Your task to perform on an android device: turn off priority inbox in the gmail app Image 0: 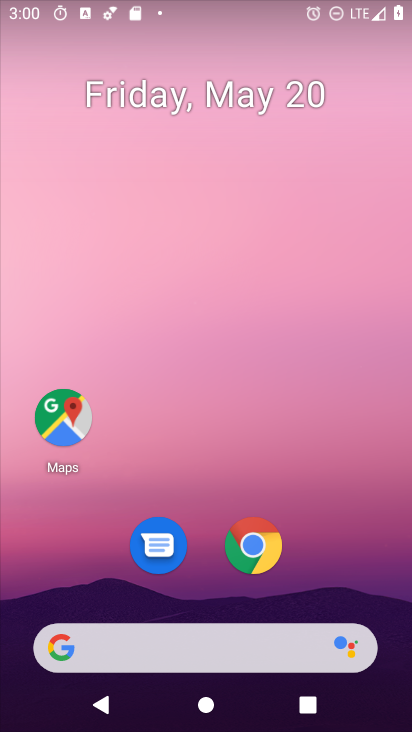
Step 0: drag from (182, 593) to (211, 0)
Your task to perform on an android device: turn off priority inbox in the gmail app Image 1: 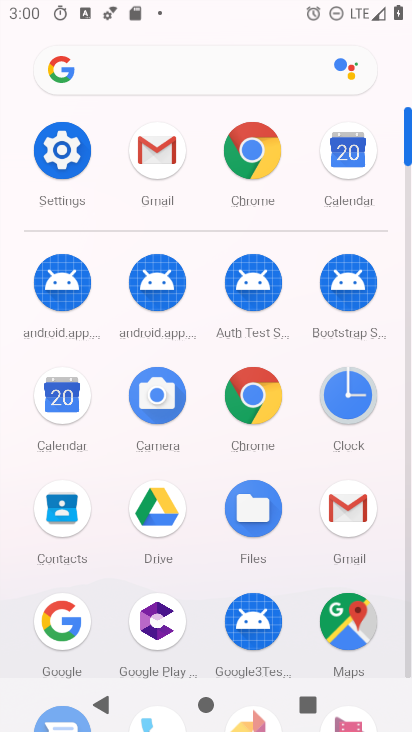
Step 1: click (338, 505)
Your task to perform on an android device: turn off priority inbox in the gmail app Image 2: 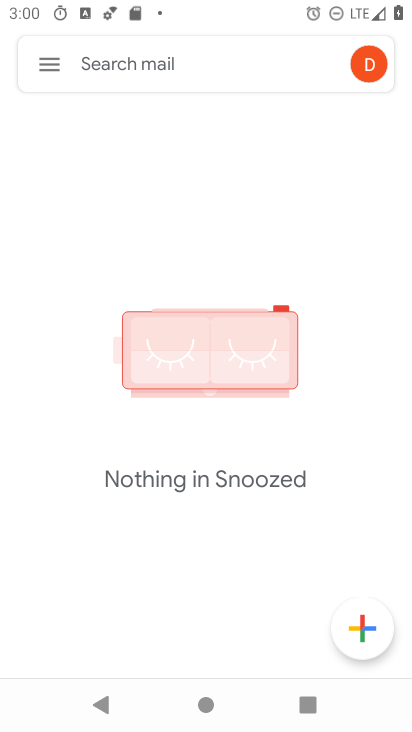
Step 2: click (58, 65)
Your task to perform on an android device: turn off priority inbox in the gmail app Image 3: 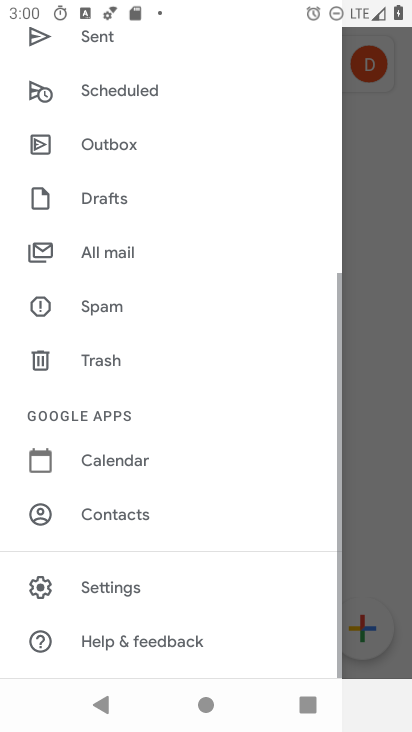
Step 3: click (164, 582)
Your task to perform on an android device: turn off priority inbox in the gmail app Image 4: 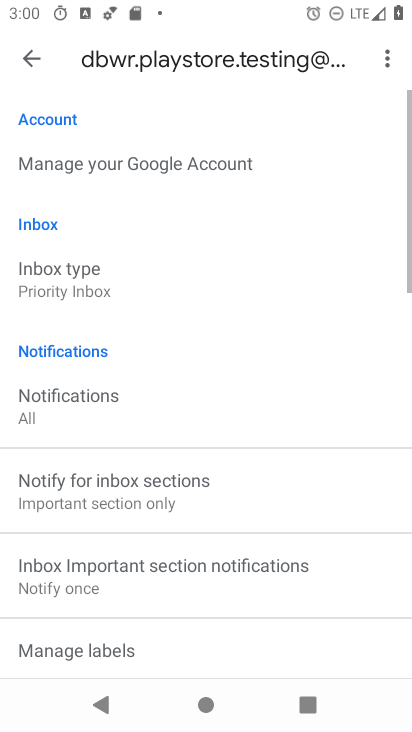
Step 4: drag from (201, 636) to (248, 173)
Your task to perform on an android device: turn off priority inbox in the gmail app Image 5: 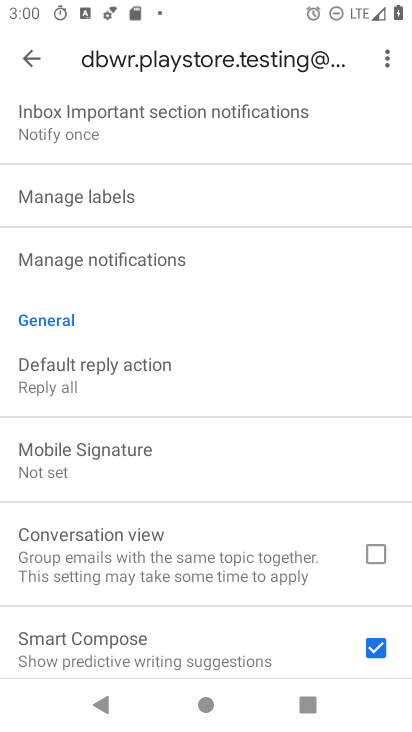
Step 5: drag from (315, 178) to (274, 718)
Your task to perform on an android device: turn off priority inbox in the gmail app Image 6: 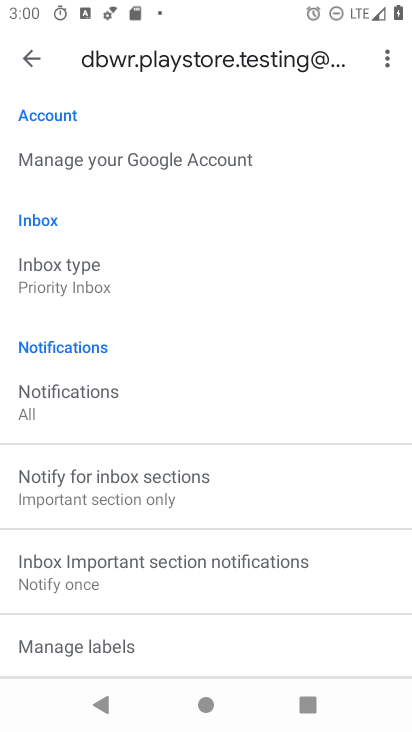
Step 6: drag from (128, 211) to (273, 731)
Your task to perform on an android device: turn off priority inbox in the gmail app Image 7: 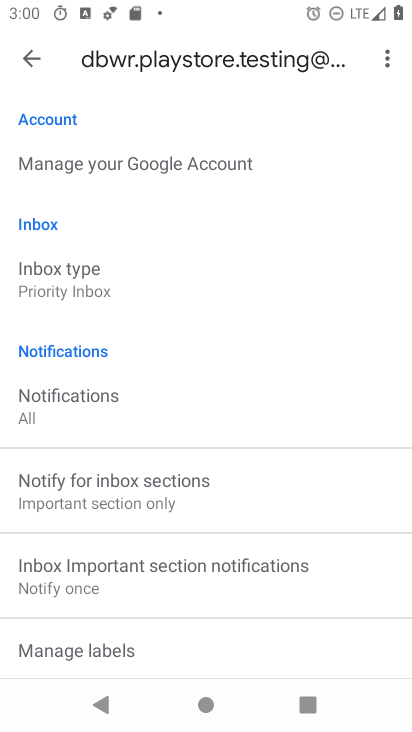
Step 7: click (110, 266)
Your task to perform on an android device: turn off priority inbox in the gmail app Image 8: 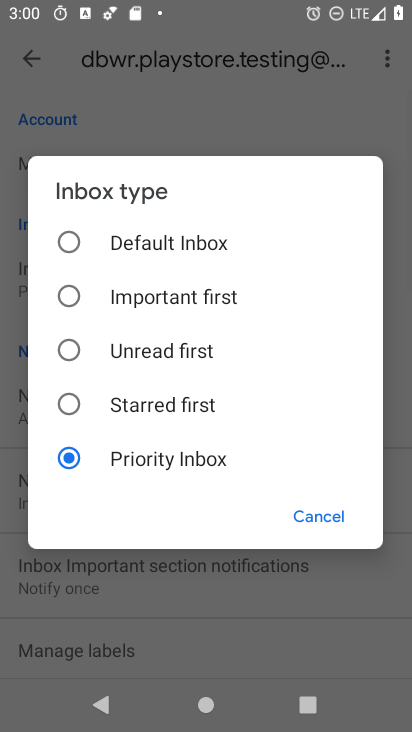
Step 8: click (144, 240)
Your task to perform on an android device: turn off priority inbox in the gmail app Image 9: 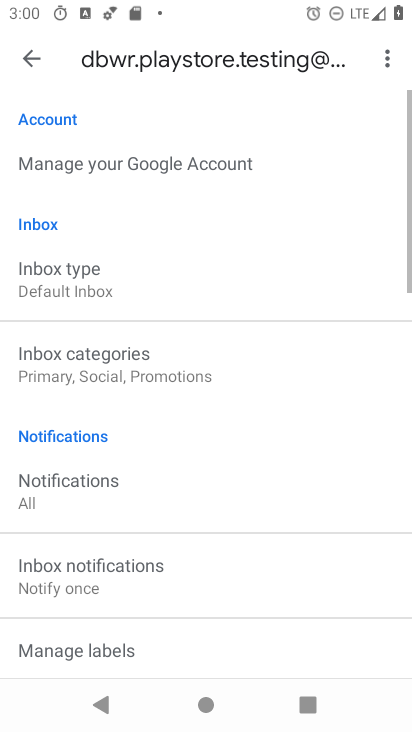
Step 9: task complete